Your task to perform on an android device: turn on the 24-hour format for clock Image 0: 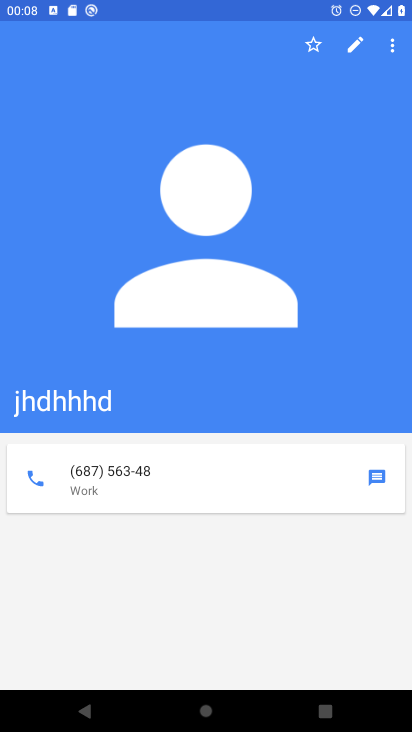
Step 0: press home button
Your task to perform on an android device: turn on the 24-hour format for clock Image 1: 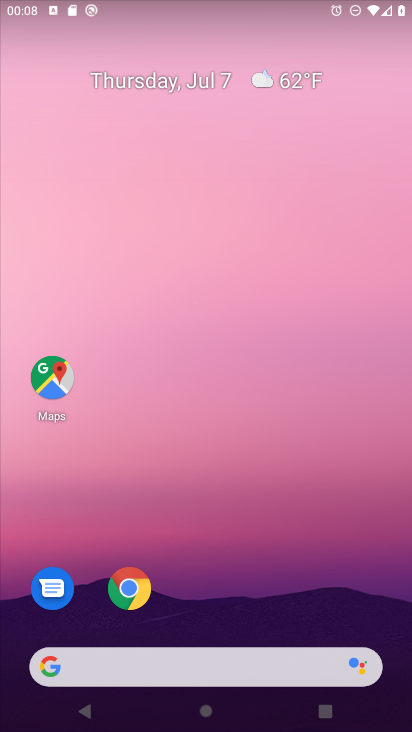
Step 1: drag from (374, 608) to (363, 77)
Your task to perform on an android device: turn on the 24-hour format for clock Image 2: 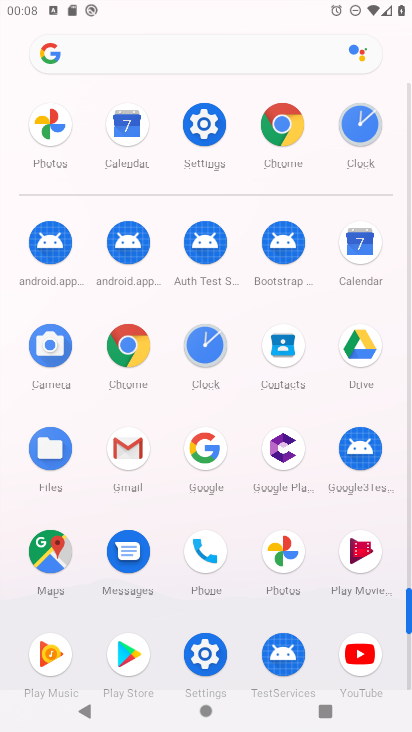
Step 2: click (201, 345)
Your task to perform on an android device: turn on the 24-hour format for clock Image 3: 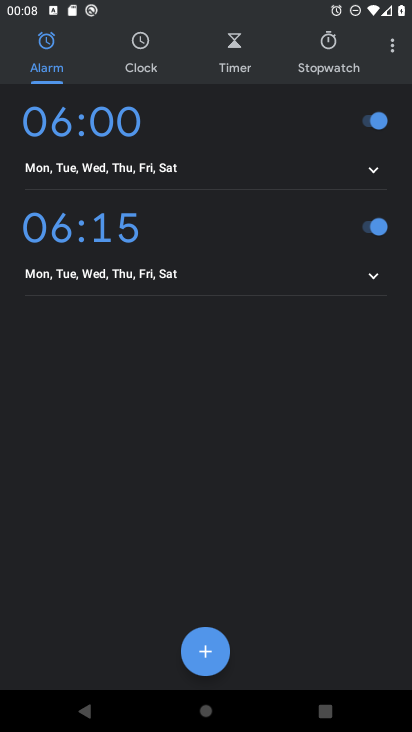
Step 3: click (391, 50)
Your task to perform on an android device: turn on the 24-hour format for clock Image 4: 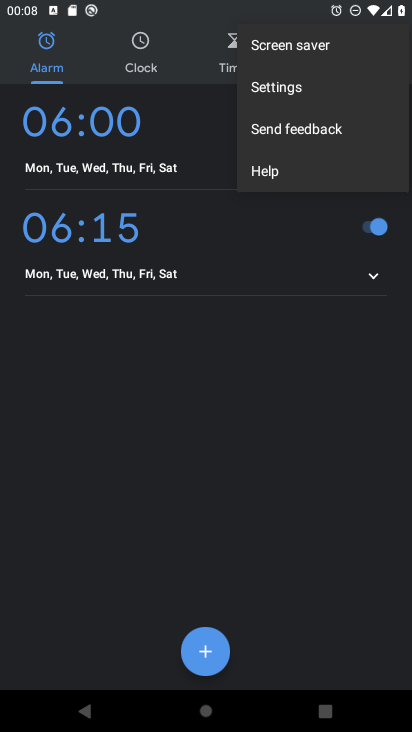
Step 4: click (274, 87)
Your task to perform on an android device: turn on the 24-hour format for clock Image 5: 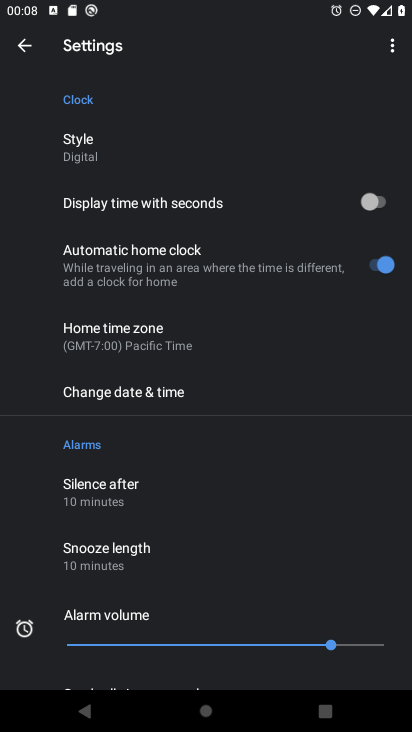
Step 5: click (164, 394)
Your task to perform on an android device: turn on the 24-hour format for clock Image 6: 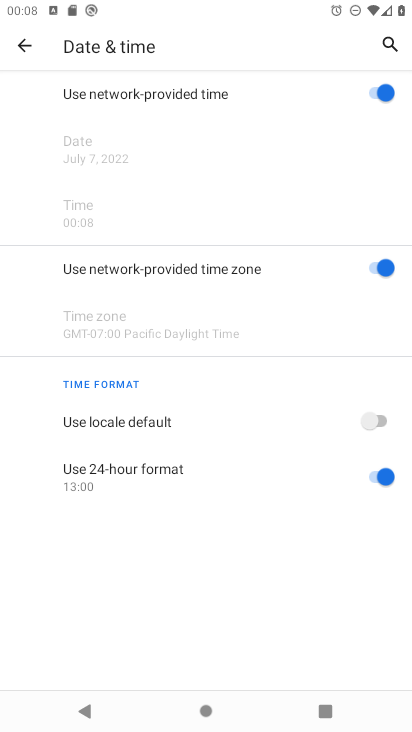
Step 6: task complete